Your task to perform on an android device: change the upload size in google photos Image 0: 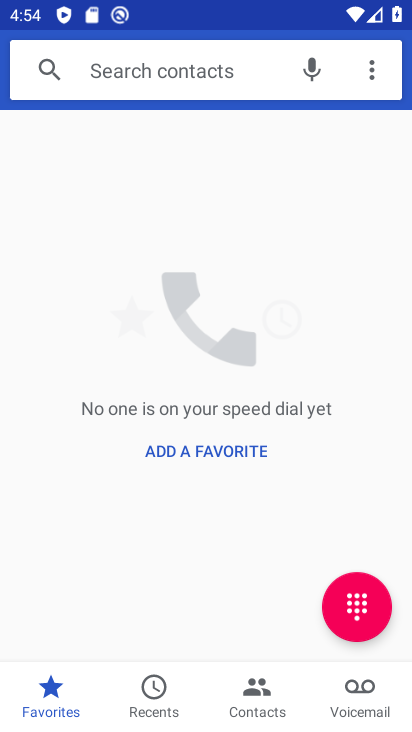
Step 0: press home button
Your task to perform on an android device: change the upload size in google photos Image 1: 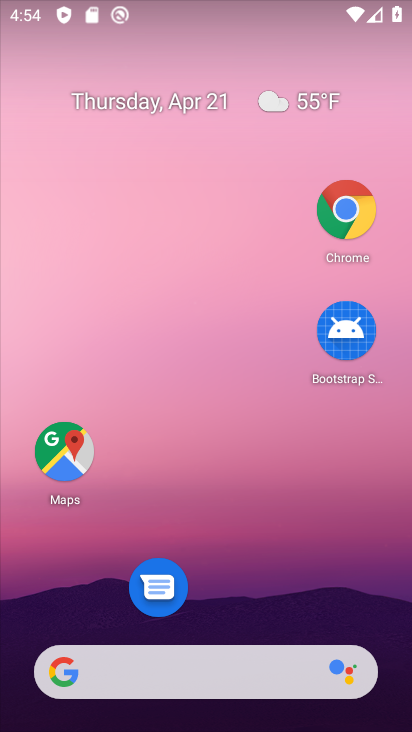
Step 1: drag from (248, 559) to (236, 144)
Your task to perform on an android device: change the upload size in google photos Image 2: 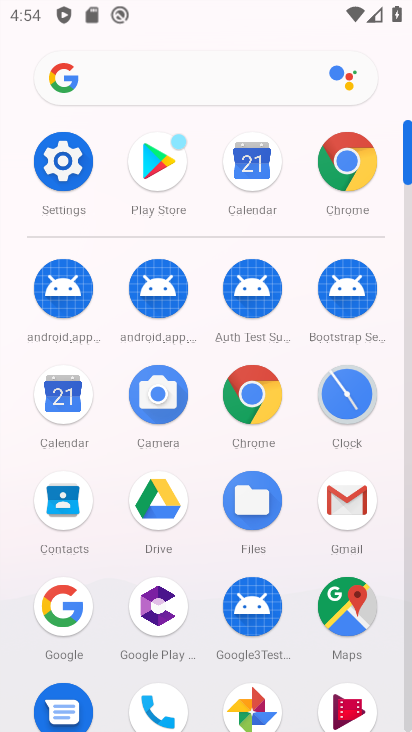
Step 2: click (250, 702)
Your task to perform on an android device: change the upload size in google photos Image 3: 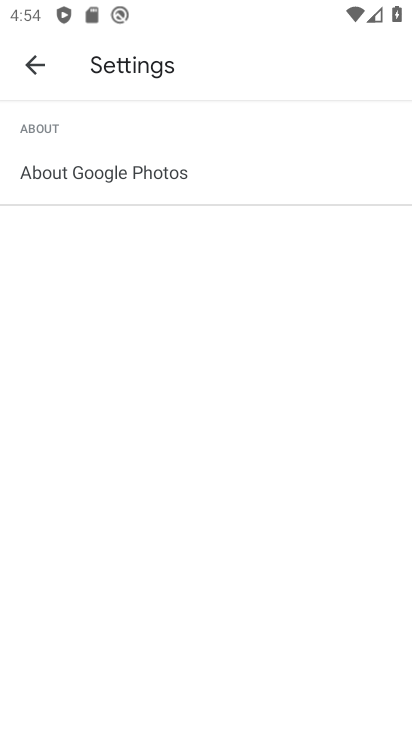
Step 3: press back button
Your task to perform on an android device: change the upload size in google photos Image 4: 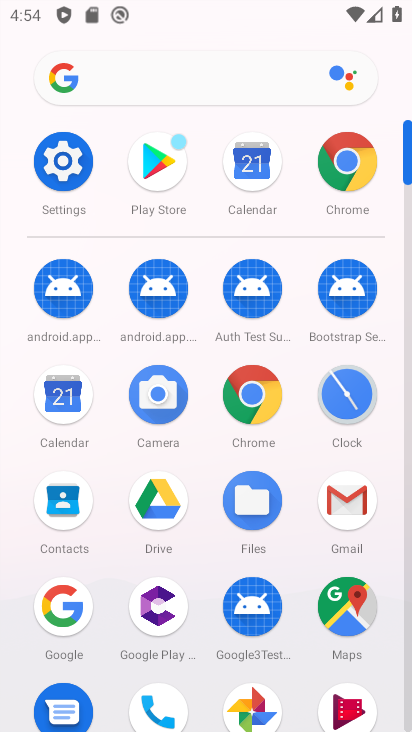
Step 4: click (257, 702)
Your task to perform on an android device: change the upload size in google photos Image 5: 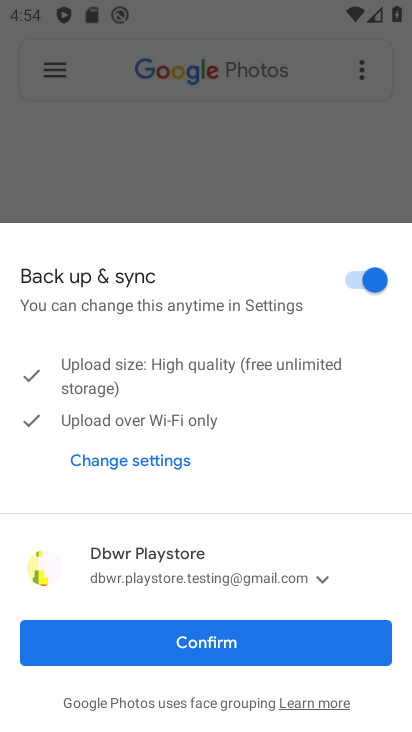
Step 5: click (241, 645)
Your task to perform on an android device: change the upload size in google photos Image 6: 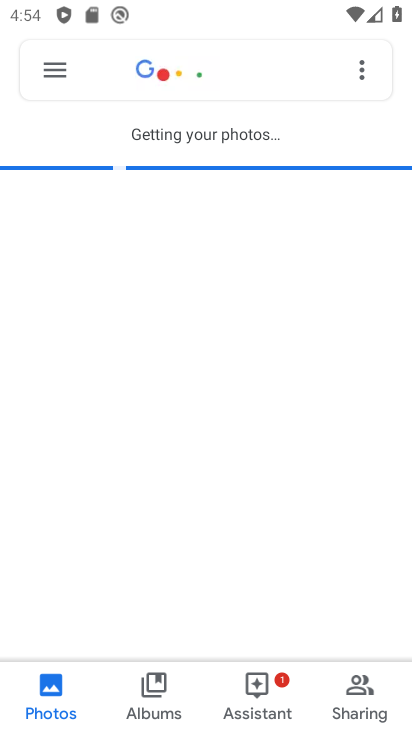
Step 6: click (45, 63)
Your task to perform on an android device: change the upload size in google photos Image 7: 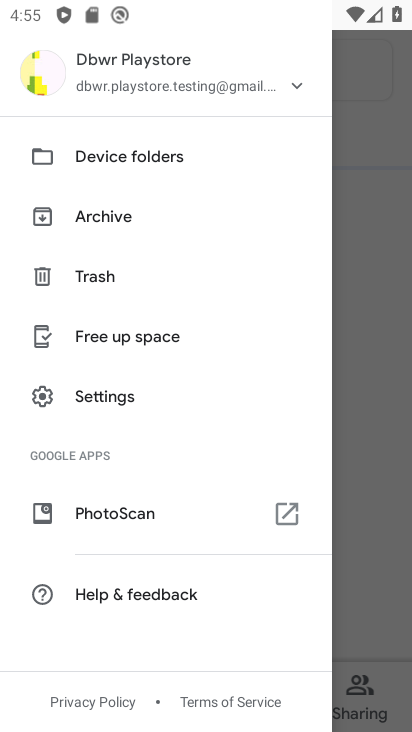
Step 7: click (144, 77)
Your task to perform on an android device: change the upload size in google photos Image 8: 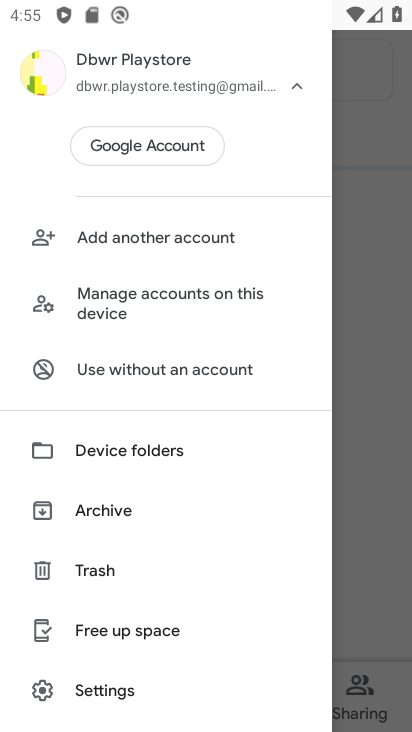
Step 8: click (144, 77)
Your task to perform on an android device: change the upload size in google photos Image 9: 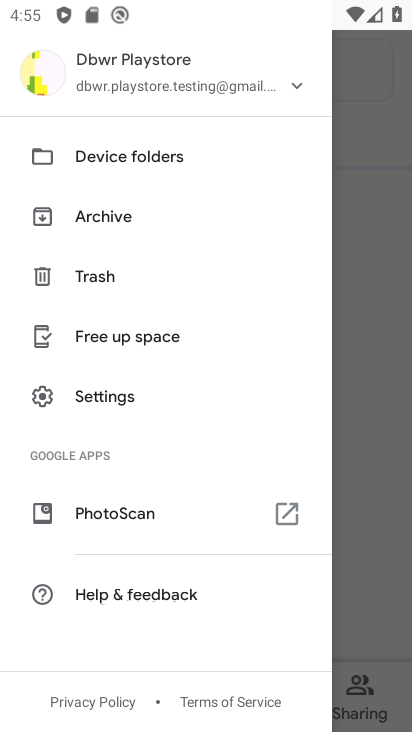
Step 9: click (112, 397)
Your task to perform on an android device: change the upload size in google photos Image 10: 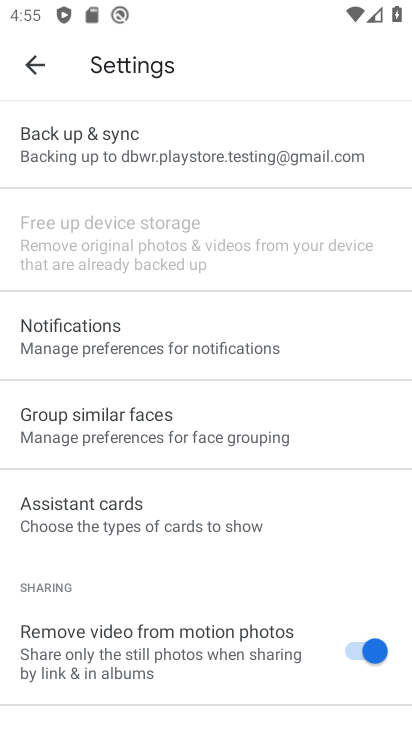
Step 10: click (117, 141)
Your task to perform on an android device: change the upload size in google photos Image 11: 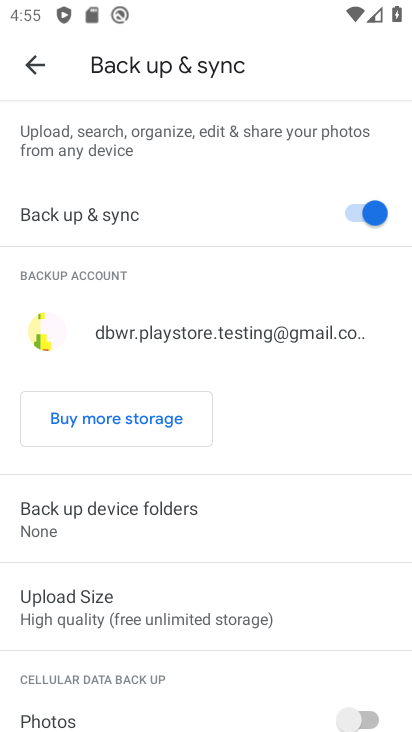
Step 11: click (57, 611)
Your task to perform on an android device: change the upload size in google photos Image 12: 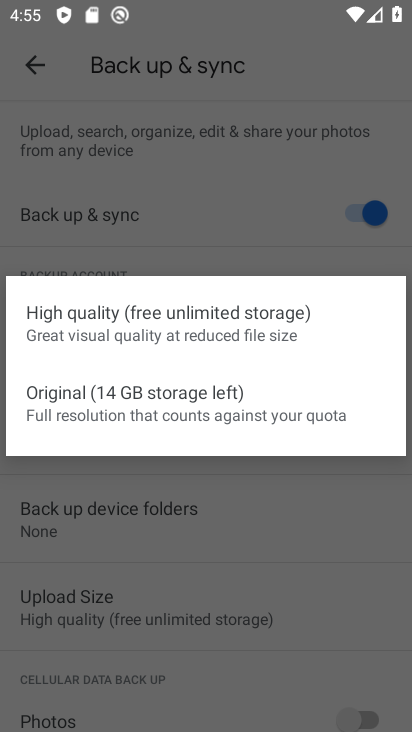
Step 12: click (90, 385)
Your task to perform on an android device: change the upload size in google photos Image 13: 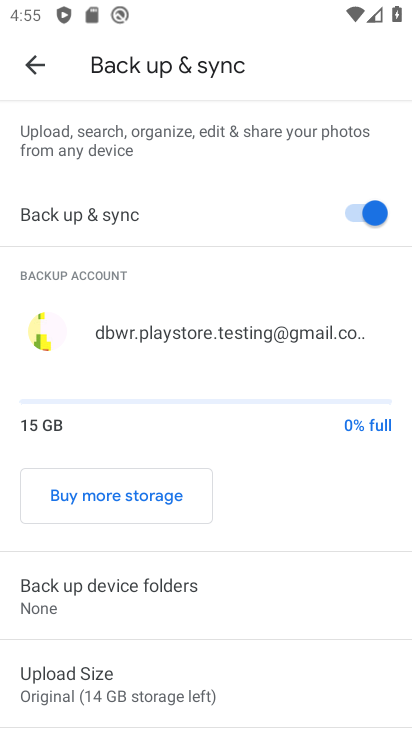
Step 13: task complete